Your task to perform on an android device: Go to accessibility settings Image 0: 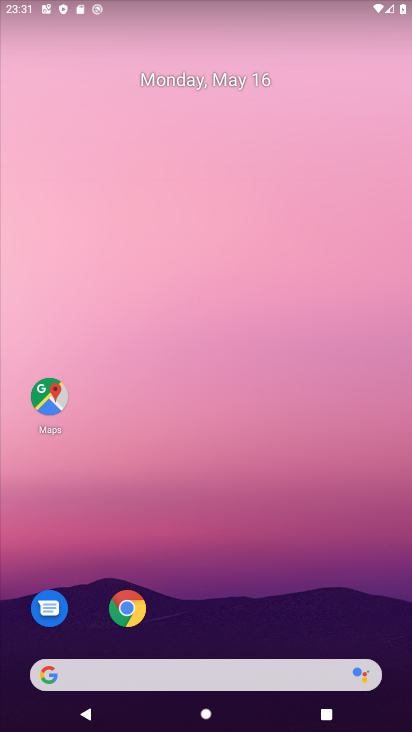
Step 0: drag from (189, 658) to (281, 212)
Your task to perform on an android device: Go to accessibility settings Image 1: 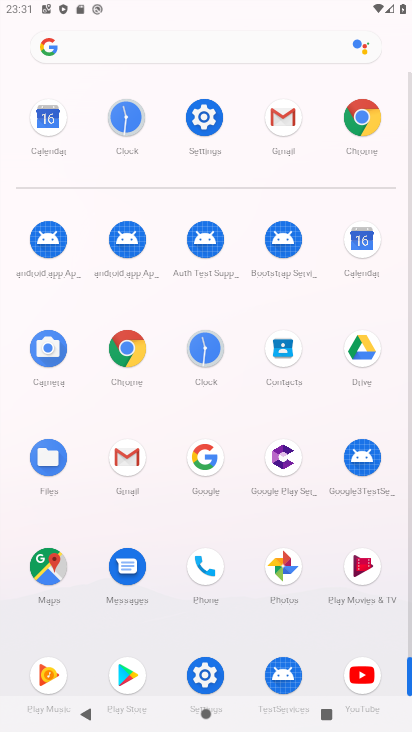
Step 1: click (209, 124)
Your task to perform on an android device: Go to accessibility settings Image 2: 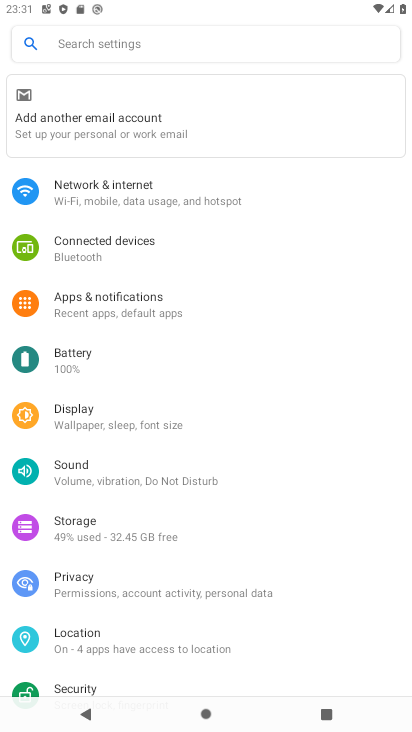
Step 2: drag from (233, 541) to (267, 222)
Your task to perform on an android device: Go to accessibility settings Image 3: 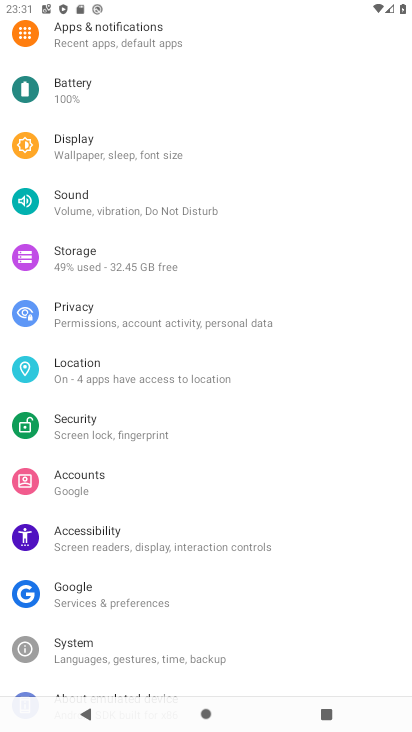
Step 3: click (120, 529)
Your task to perform on an android device: Go to accessibility settings Image 4: 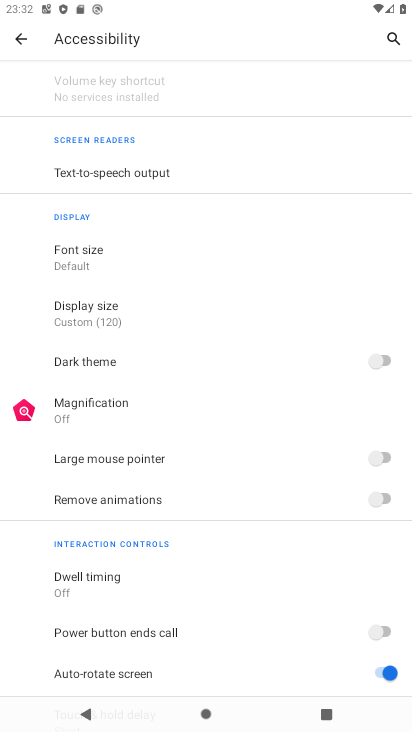
Step 4: task complete